Your task to perform on an android device: move a message to another label in the gmail app Image 0: 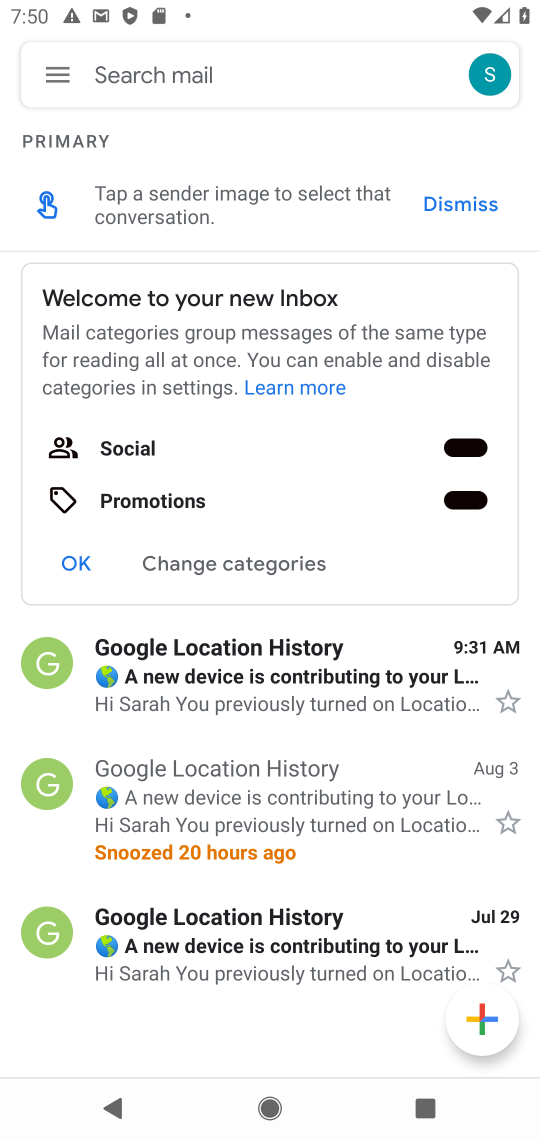
Step 0: press home button
Your task to perform on an android device: move a message to another label in the gmail app Image 1: 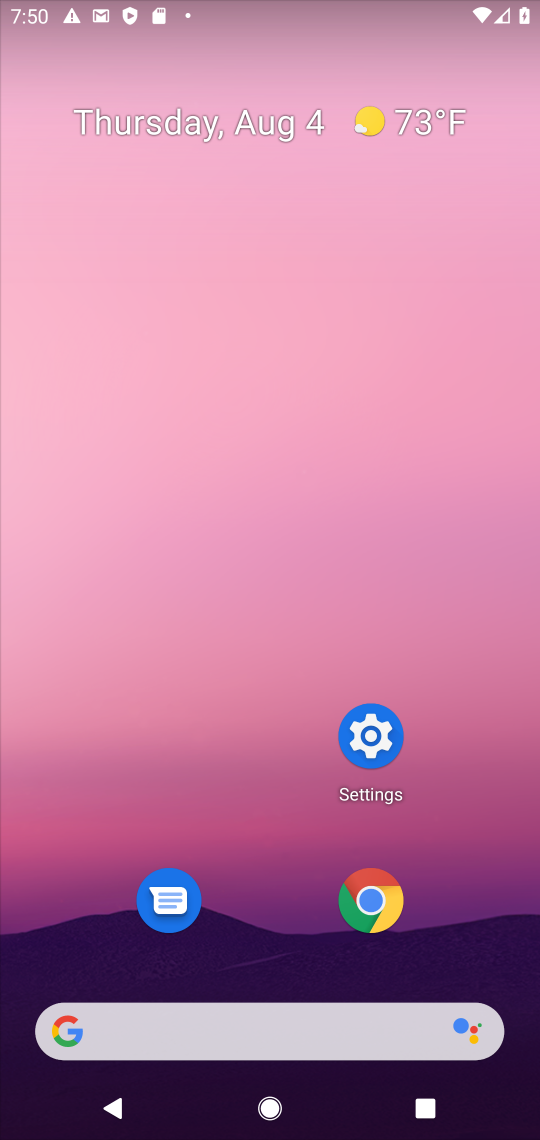
Step 1: drag from (335, 1021) to (426, 319)
Your task to perform on an android device: move a message to another label in the gmail app Image 2: 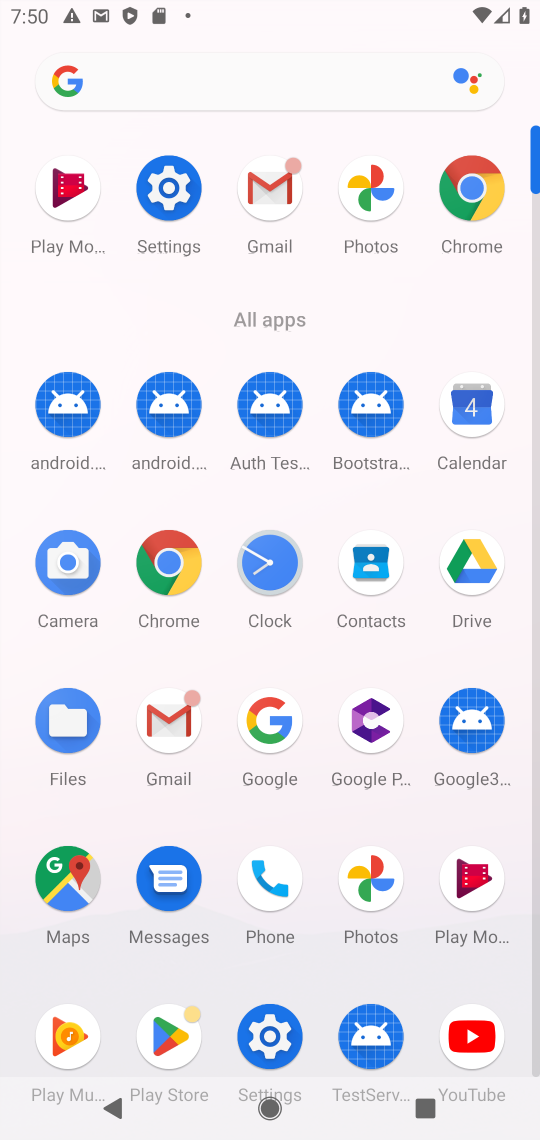
Step 2: click (271, 190)
Your task to perform on an android device: move a message to another label in the gmail app Image 3: 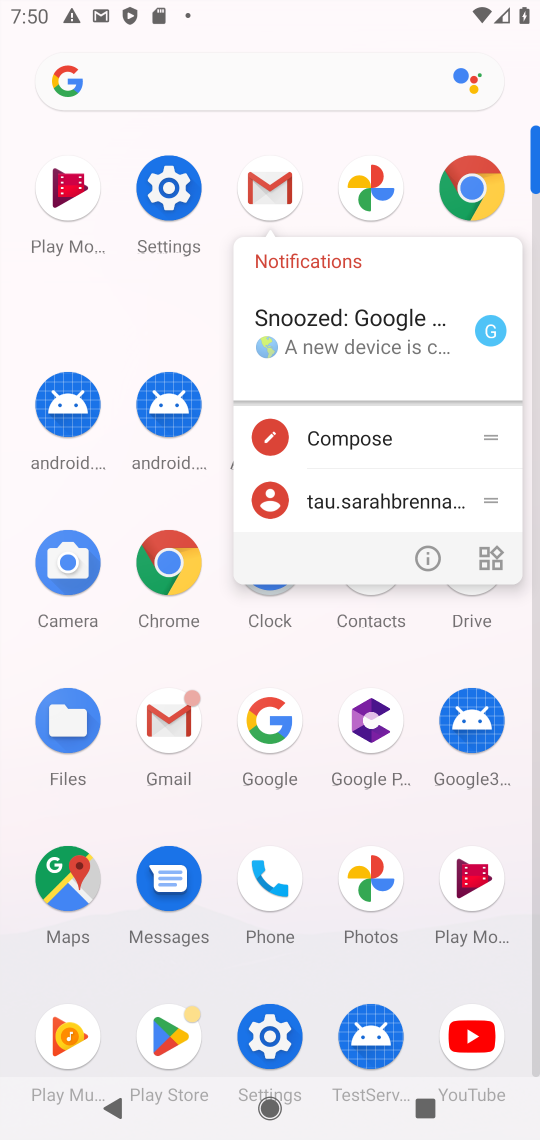
Step 3: click (271, 190)
Your task to perform on an android device: move a message to another label in the gmail app Image 4: 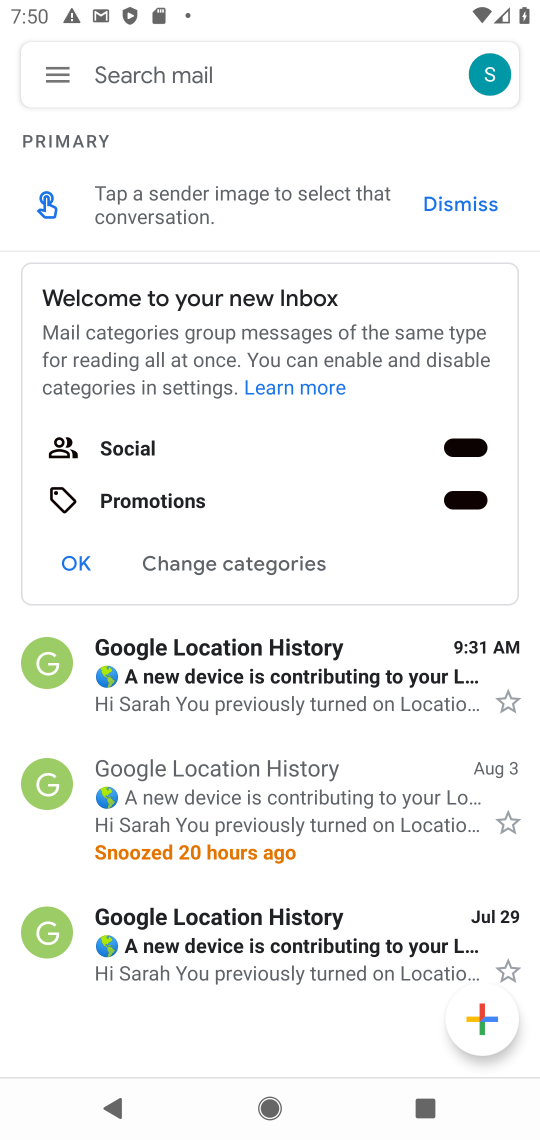
Step 4: click (191, 670)
Your task to perform on an android device: move a message to another label in the gmail app Image 5: 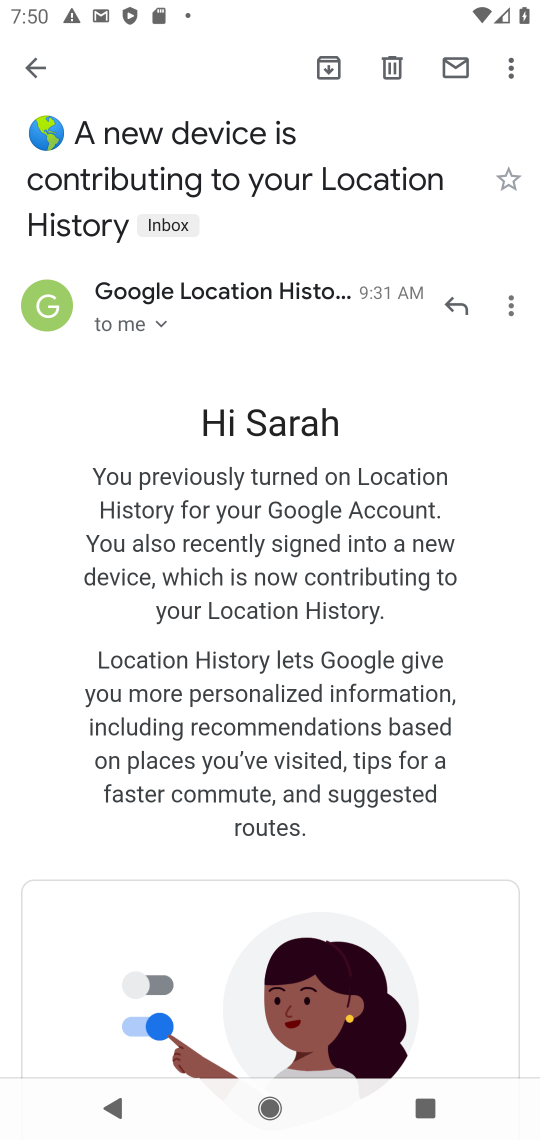
Step 5: click (174, 222)
Your task to perform on an android device: move a message to another label in the gmail app Image 6: 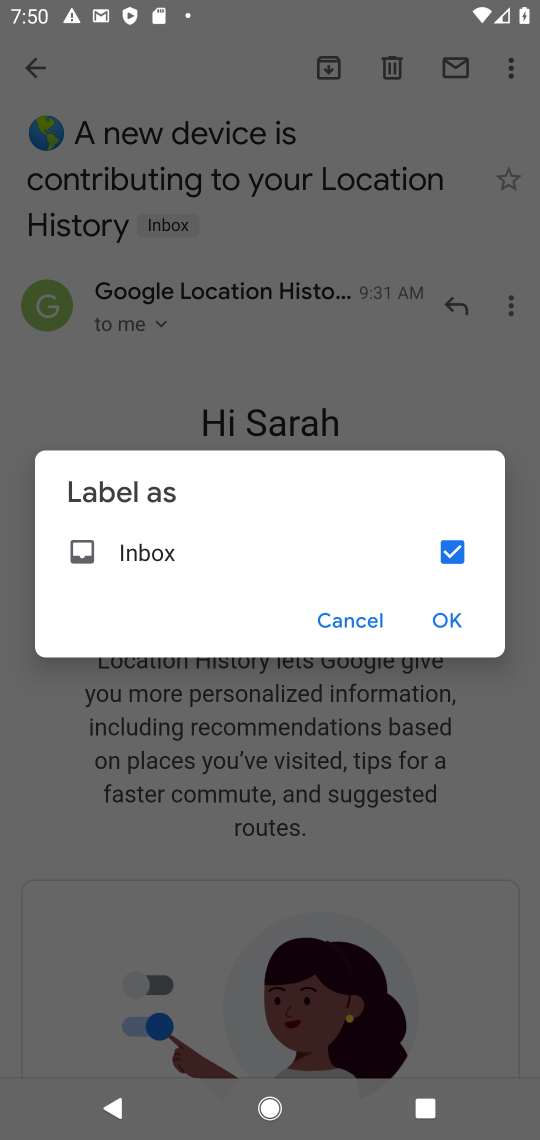
Step 6: click (446, 550)
Your task to perform on an android device: move a message to another label in the gmail app Image 7: 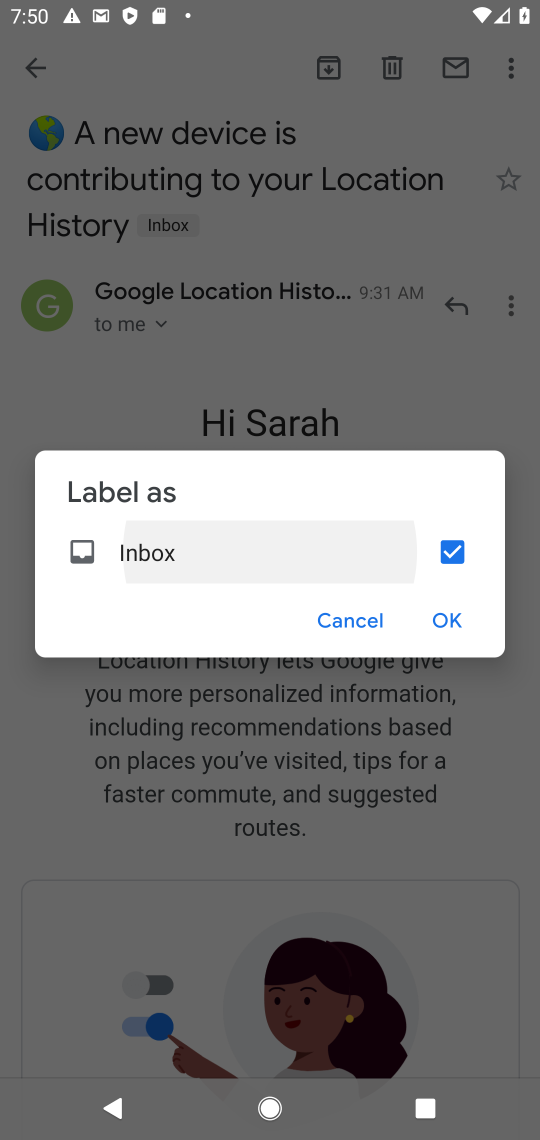
Step 7: click (459, 618)
Your task to perform on an android device: move a message to another label in the gmail app Image 8: 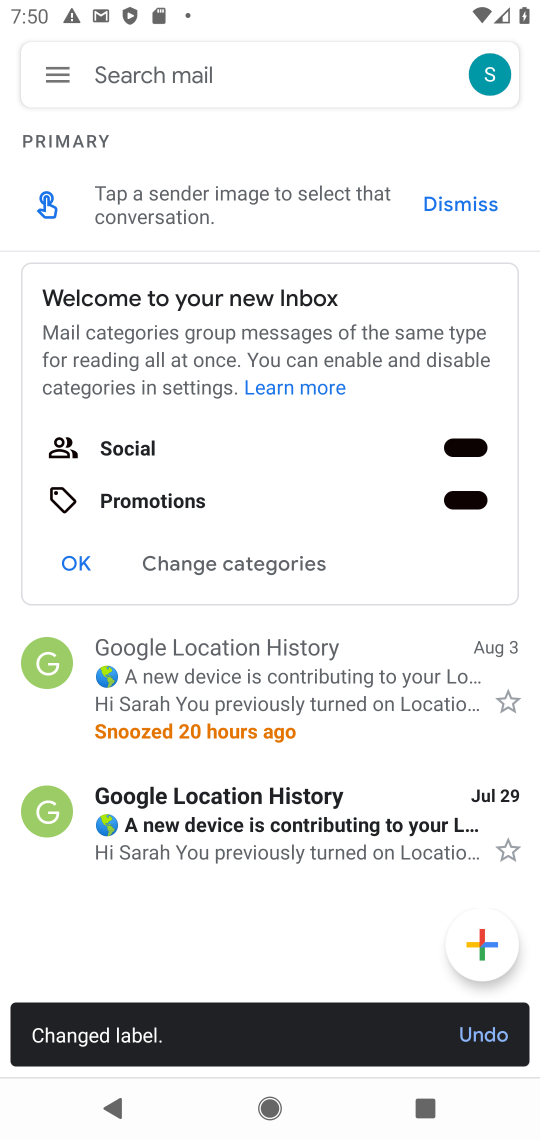
Step 8: task complete